Your task to perform on an android device: turn on javascript in the chrome app Image 0: 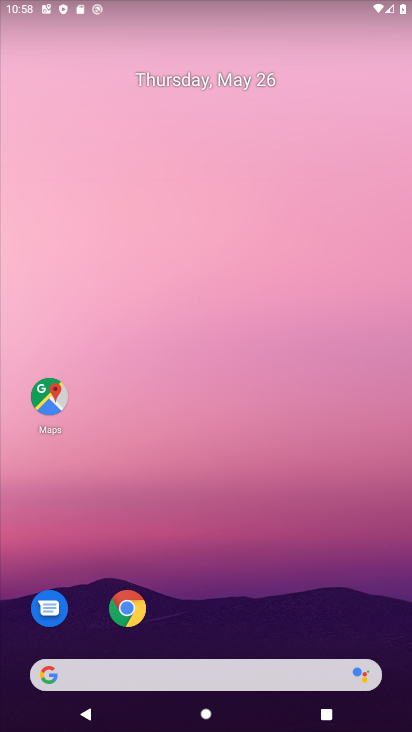
Step 0: drag from (235, 624) to (179, 165)
Your task to perform on an android device: turn on javascript in the chrome app Image 1: 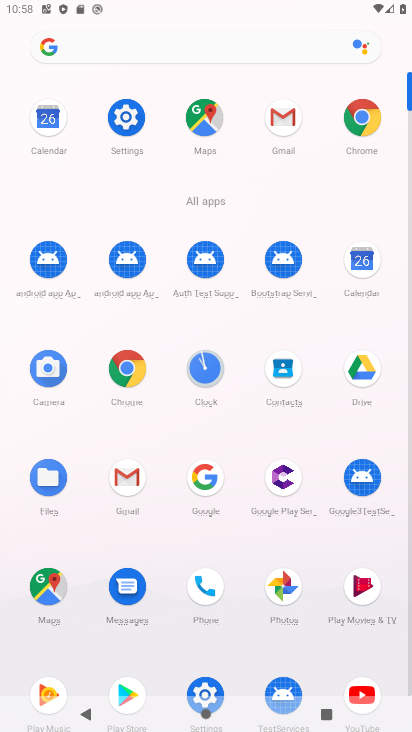
Step 1: click (371, 120)
Your task to perform on an android device: turn on javascript in the chrome app Image 2: 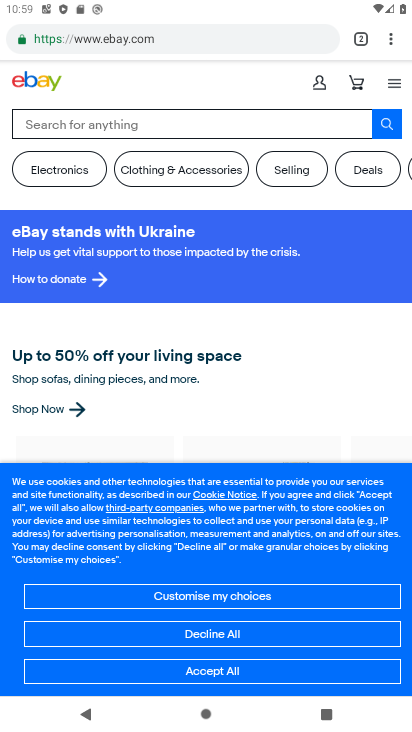
Step 2: click (389, 43)
Your task to perform on an android device: turn on javascript in the chrome app Image 3: 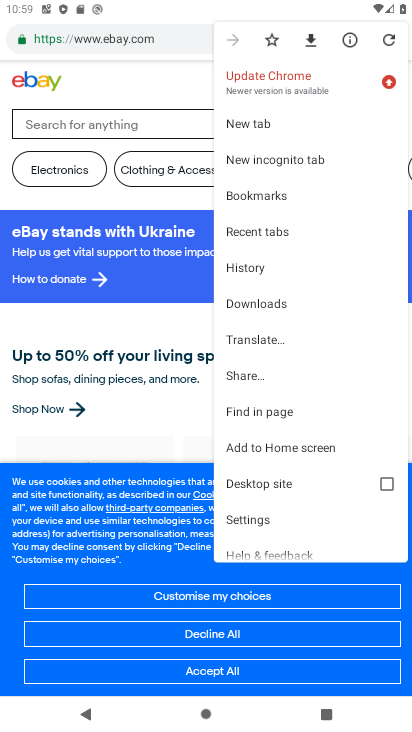
Step 3: click (260, 516)
Your task to perform on an android device: turn on javascript in the chrome app Image 4: 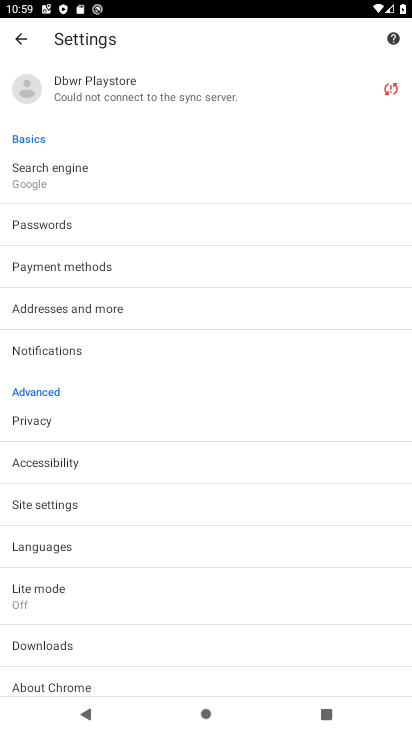
Step 4: click (194, 504)
Your task to perform on an android device: turn on javascript in the chrome app Image 5: 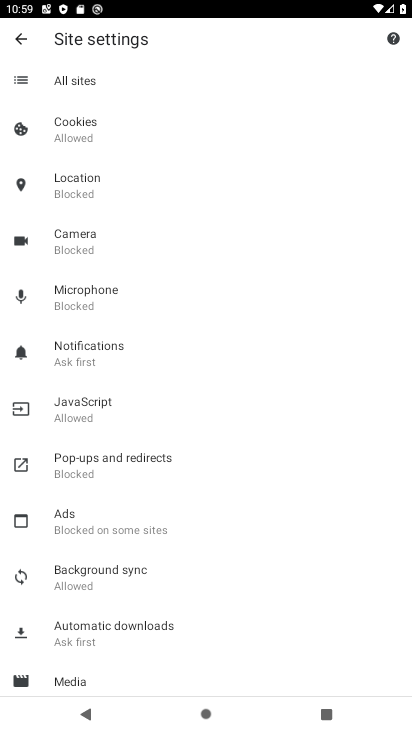
Step 5: click (131, 406)
Your task to perform on an android device: turn on javascript in the chrome app Image 6: 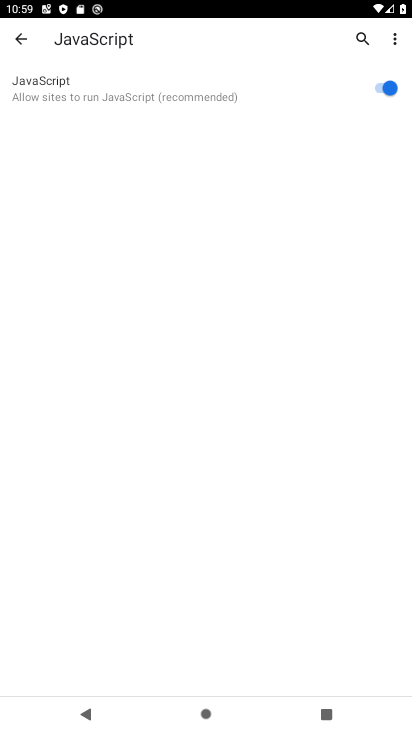
Step 6: task complete